Your task to perform on an android device: Go to accessibility settings Image 0: 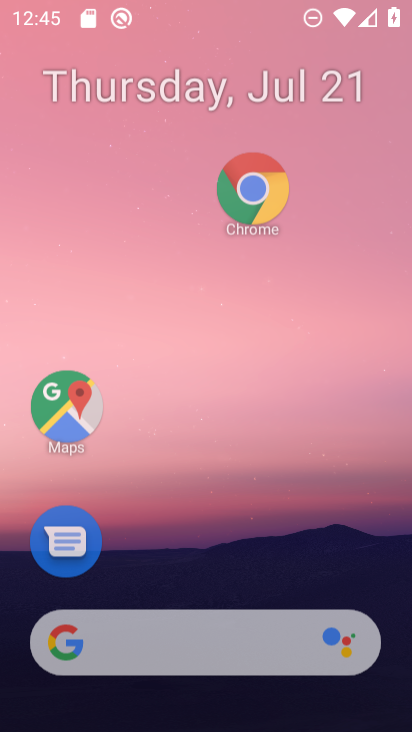
Step 0: drag from (263, 642) to (336, 255)
Your task to perform on an android device: Go to accessibility settings Image 1: 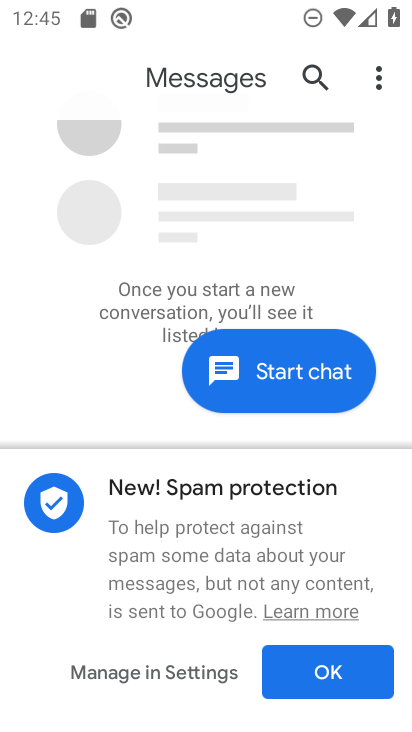
Step 1: press home button
Your task to perform on an android device: Go to accessibility settings Image 2: 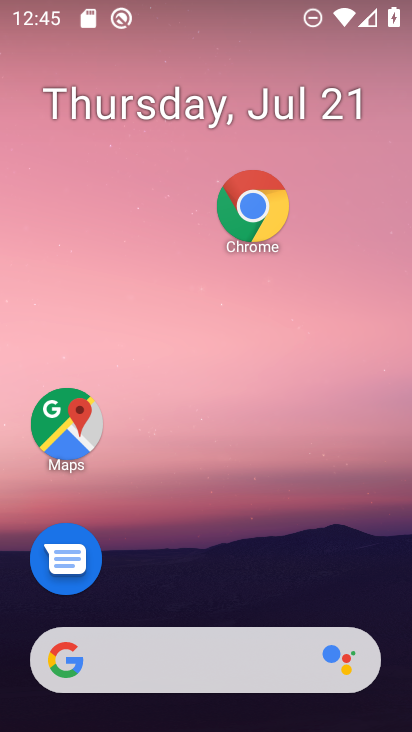
Step 2: drag from (308, 662) to (316, 303)
Your task to perform on an android device: Go to accessibility settings Image 3: 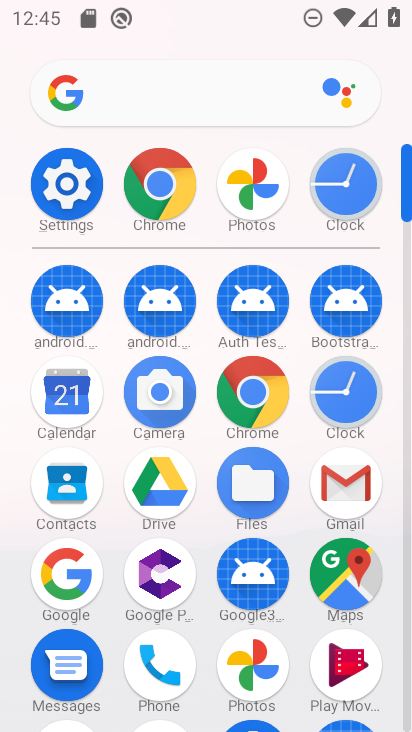
Step 3: click (85, 198)
Your task to perform on an android device: Go to accessibility settings Image 4: 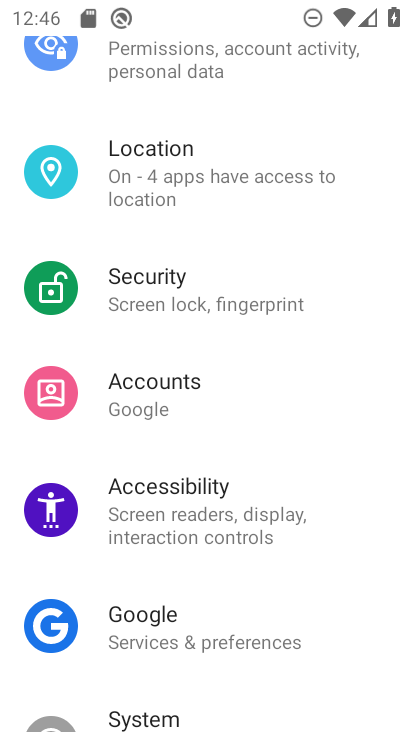
Step 4: drag from (163, 530) to (197, 360)
Your task to perform on an android device: Go to accessibility settings Image 5: 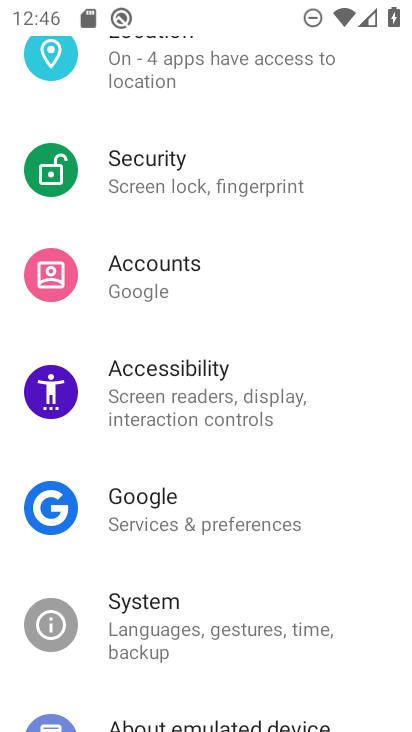
Step 5: click (195, 398)
Your task to perform on an android device: Go to accessibility settings Image 6: 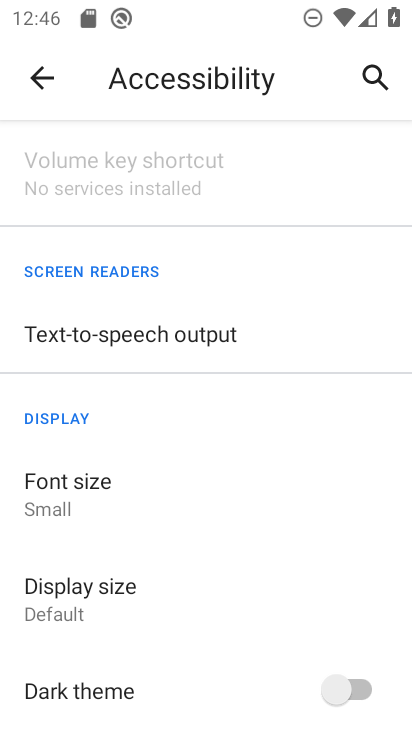
Step 6: task complete